Your task to perform on an android device: Open battery settings Image 0: 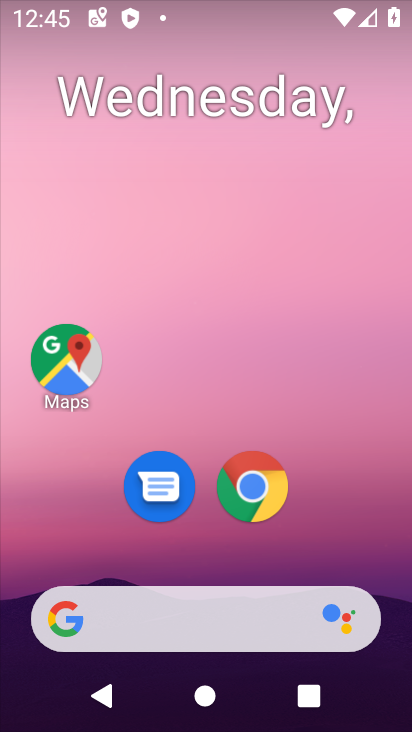
Step 0: drag from (378, 554) to (372, 178)
Your task to perform on an android device: Open battery settings Image 1: 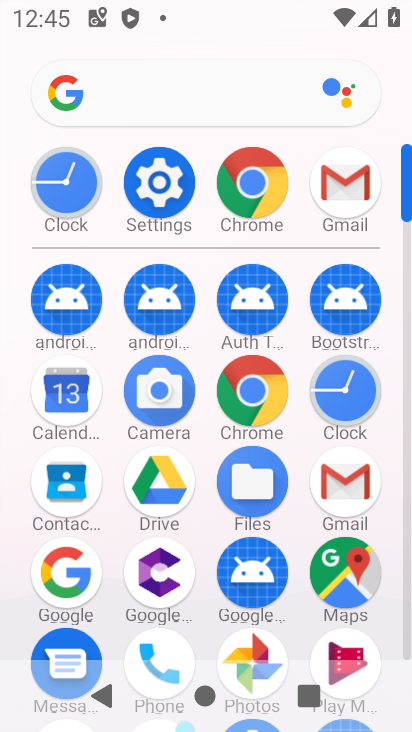
Step 1: click (174, 208)
Your task to perform on an android device: Open battery settings Image 2: 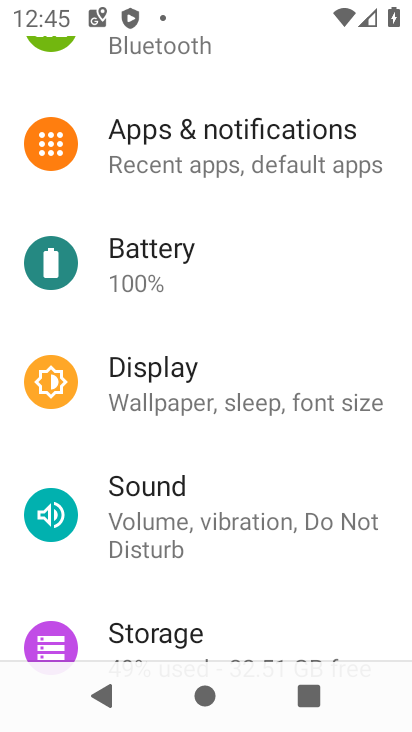
Step 2: drag from (365, 245) to (363, 403)
Your task to perform on an android device: Open battery settings Image 3: 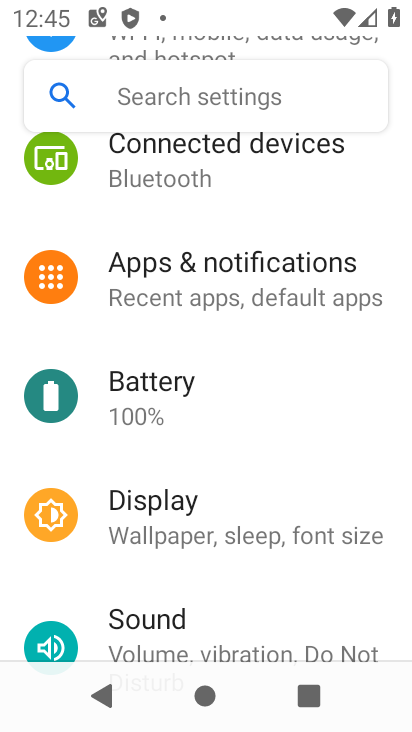
Step 3: drag from (371, 218) to (375, 354)
Your task to perform on an android device: Open battery settings Image 4: 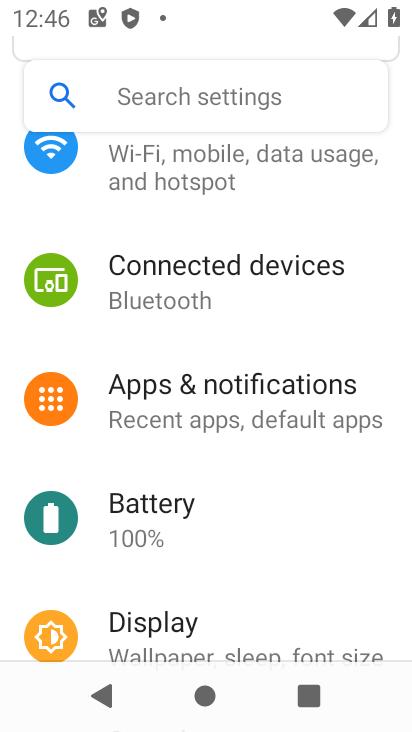
Step 4: drag from (370, 201) to (372, 342)
Your task to perform on an android device: Open battery settings Image 5: 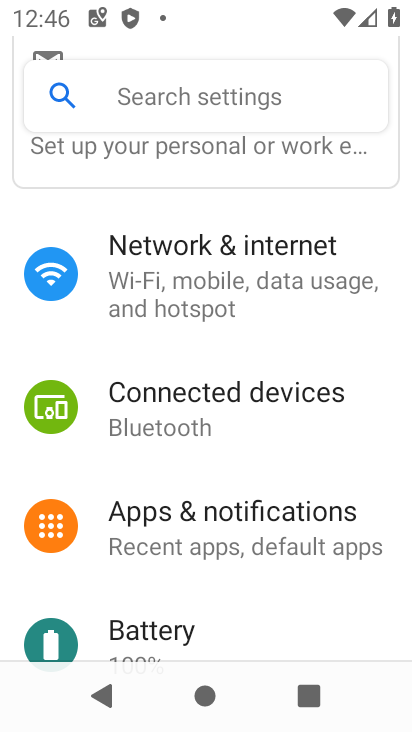
Step 5: drag from (372, 202) to (357, 455)
Your task to perform on an android device: Open battery settings Image 6: 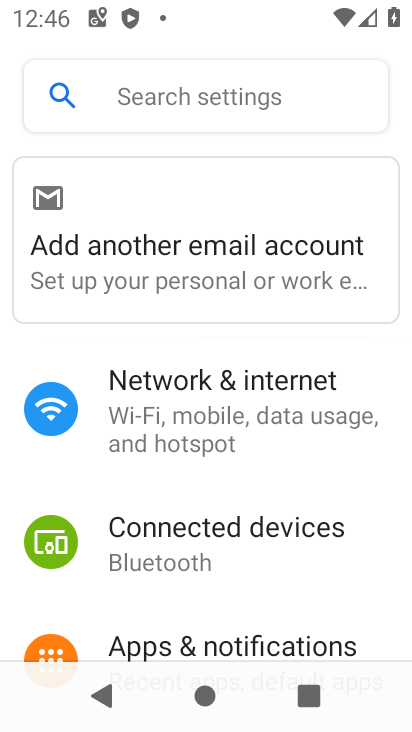
Step 6: drag from (360, 493) to (369, 372)
Your task to perform on an android device: Open battery settings Image 7: 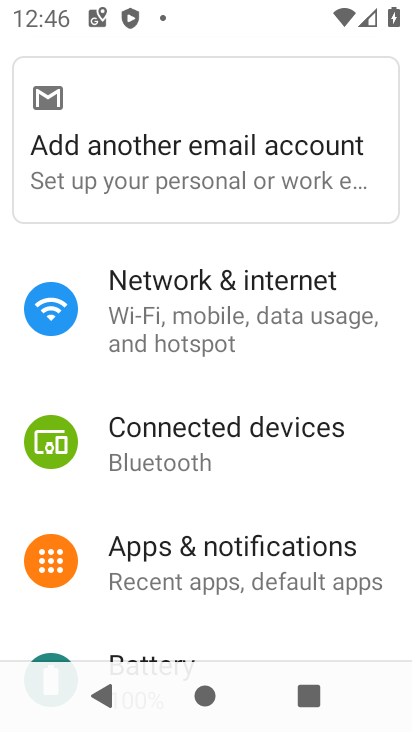
Step 7: drag from (350, 479) to (363, 380)
Your task to perform on an android device: Open battery settings Image 8: 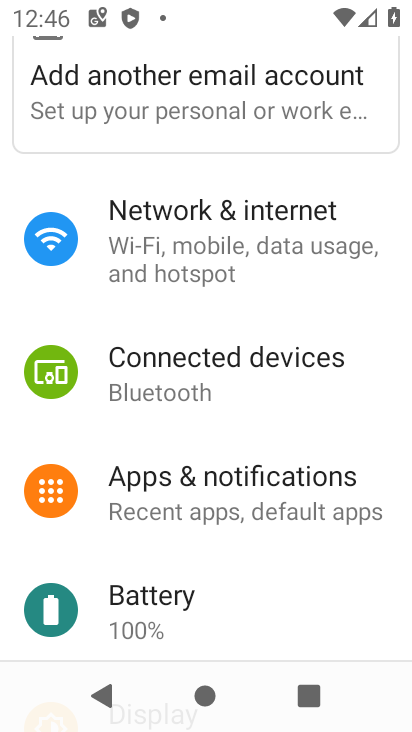
Step 8: drag from (364, 481) to (358, 325)
Your task to perform on an android device: Open battery settings Image 9: 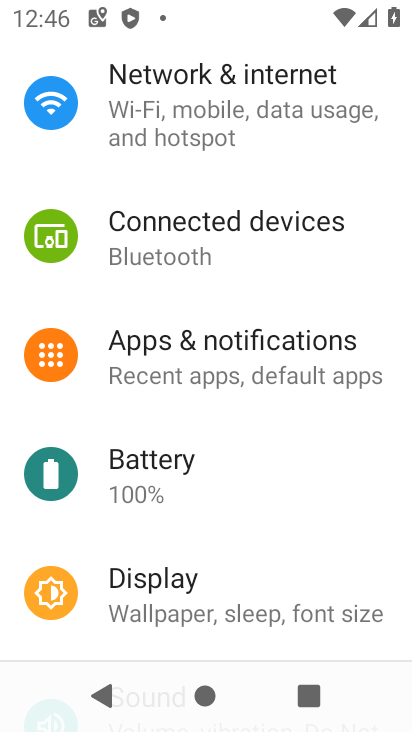
Step 9: drag from (352, 460) to (354, 318)
Your task to perform on an android device: Open battery settings Image 10: 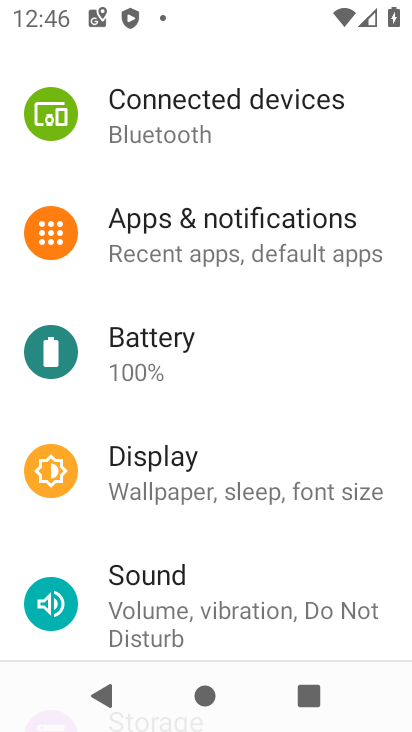
Step 10: drag from (356, 484) to (352, 336)
Your task to perform on an android device: Open battery settings Image 11: 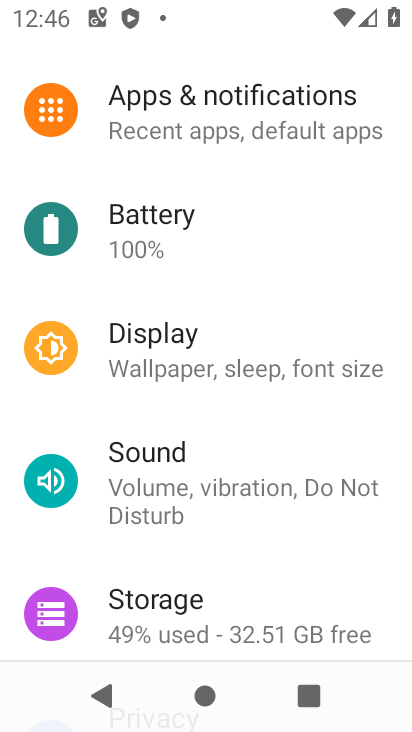
Step 11: click (244, 235)
Your task to perform on an android device: Open battery settings Image 12: 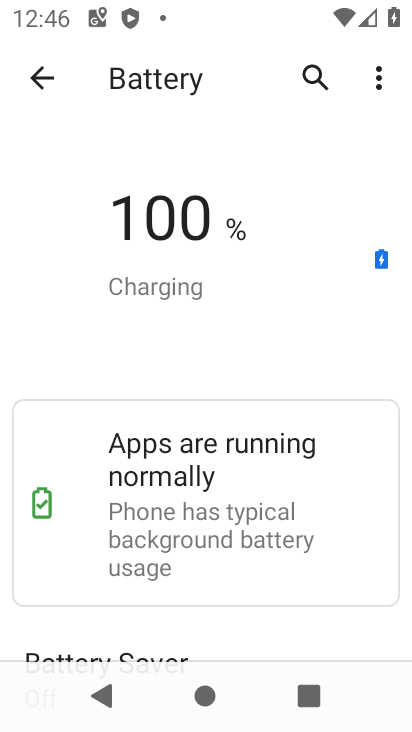
Step 12: task complete